Your task to perform on an android device: open wifi settings Image 0: 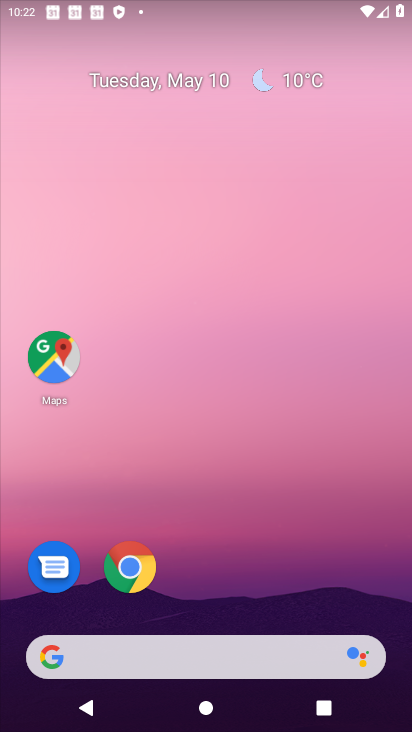
Step 0: drag from (257, 400) to (247, 38)
Your task to perform on an android device: open wifi settings Image 1: 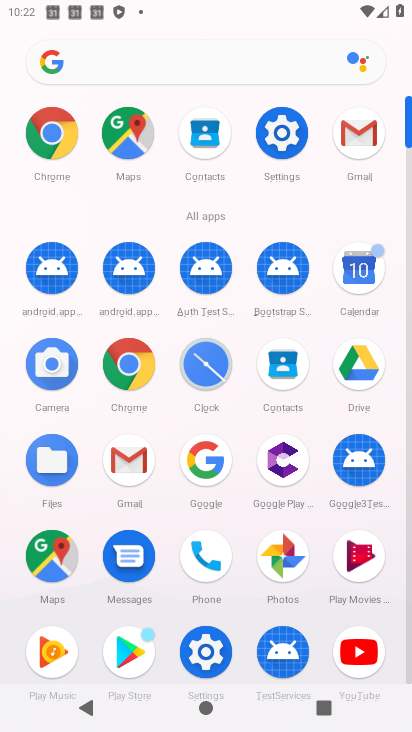
Step 1: click (282, 143)
Your task to perform on an android device: open wifi settings Image 2: 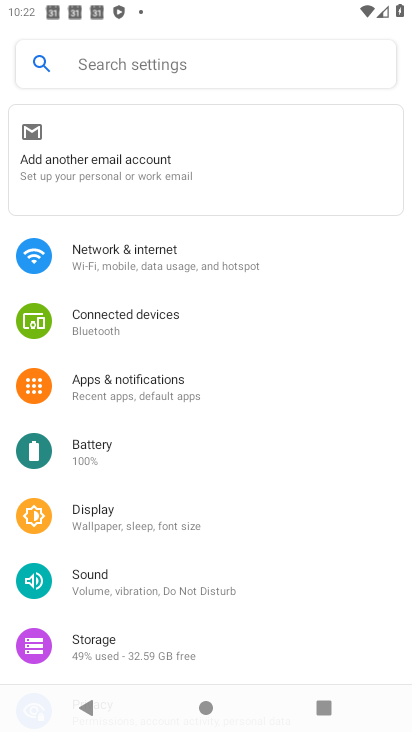
Step 2: click (161, 228)
Your task to perform on an android device: open wifi settings Image 3: 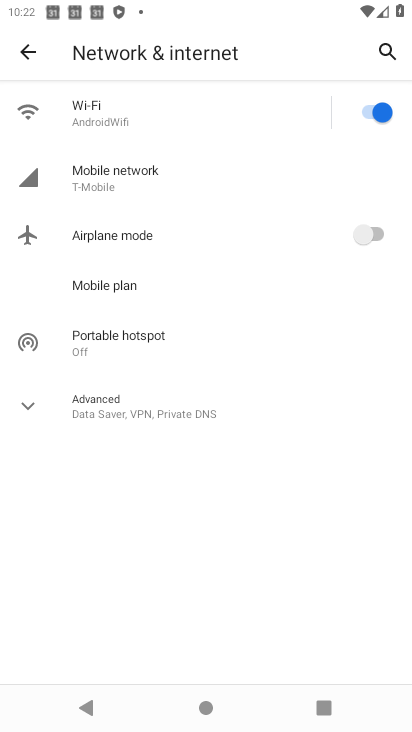
Step 3: click (147, 108)
Your task to perform on an android device: open wifi settings Image 4: 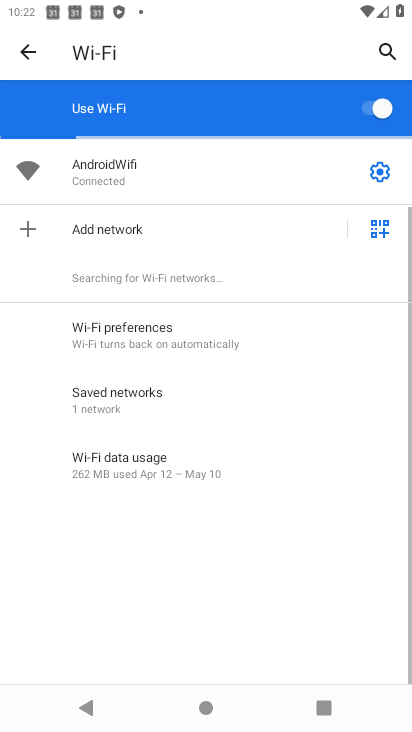
Step 4: task complete